Your task to perform on an android device: open chrome and create a bookmark for the current page Image 0: 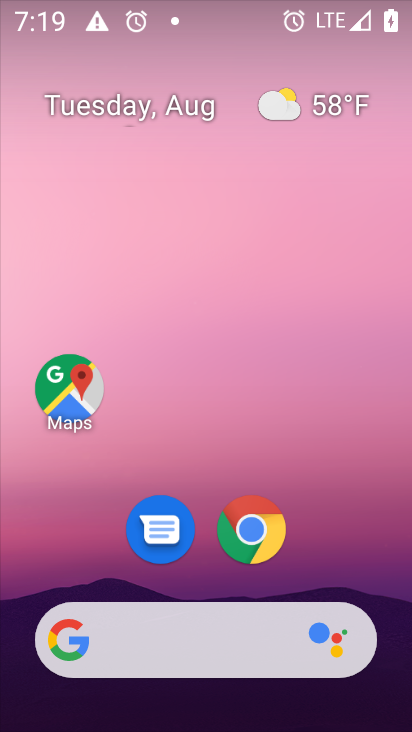
Step 0: press home button
Your task to perform on an android device: open chrome and create a bookmark for the current page Image 1: 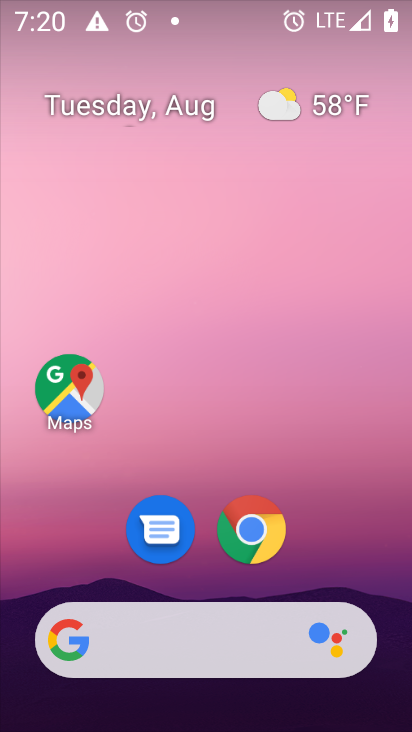
Step 1: drag from (216, 586) to (303, 20)
Your task to perform on an android device: open chrome and create a bookmark for the current page Image 2: 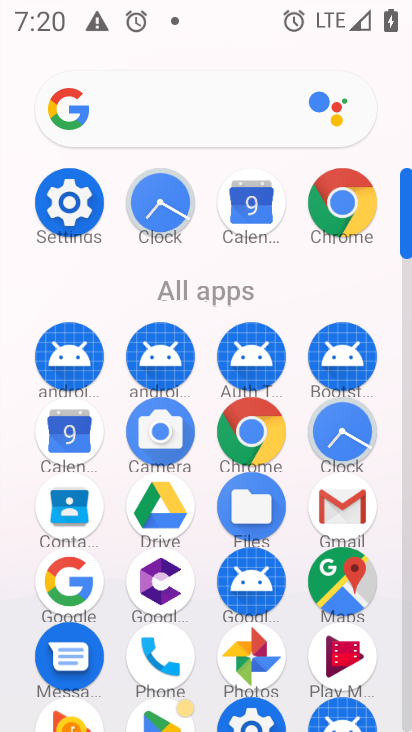
Step 2: click (340, 200)
Your task to perform on an android device: open chrome and create a bookmark for the current page Image 3: 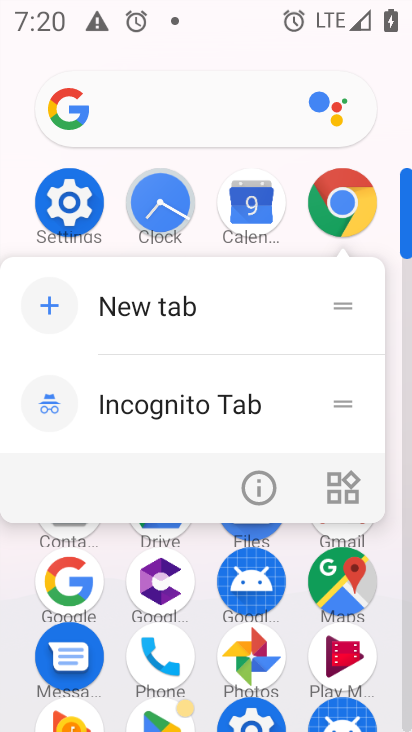
Step 3: click (340, 200)
Your task to perform on an android device: open chrome and create a bookmark for the current page Image 4: 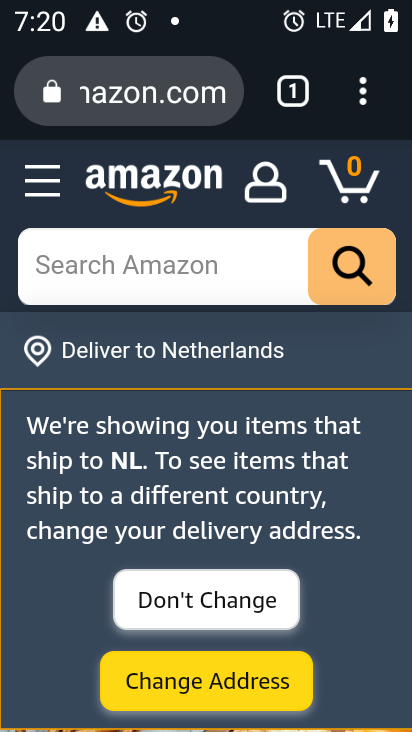
Step 4: task complete